Your task to perform on an android device: turn off notifications settings in the gmail app Image 0: 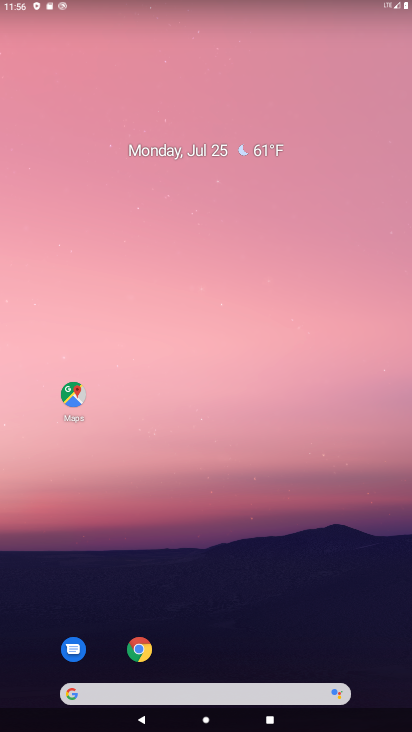
Step 0: drag from (217, 669) to (139, 31)
Your task to perform on an android device: turn off notifications settings in the gmail app Image 1: 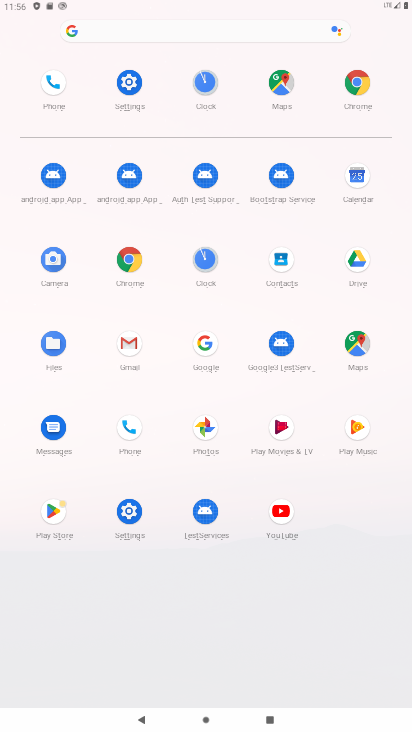
Step 1: click (136, 357)
Your task to perform on an android device: turn off notifications settings in the gmail app Image 2: 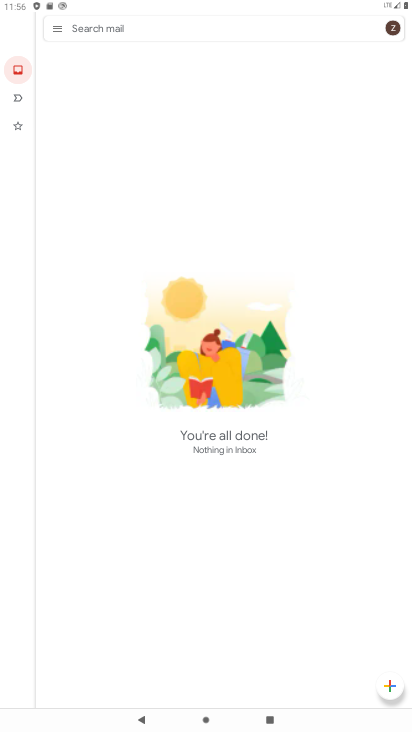
Step 2: click (53, 34)
Your task to perform on an android device: turn off notifications settings in the gmail app Image 3: 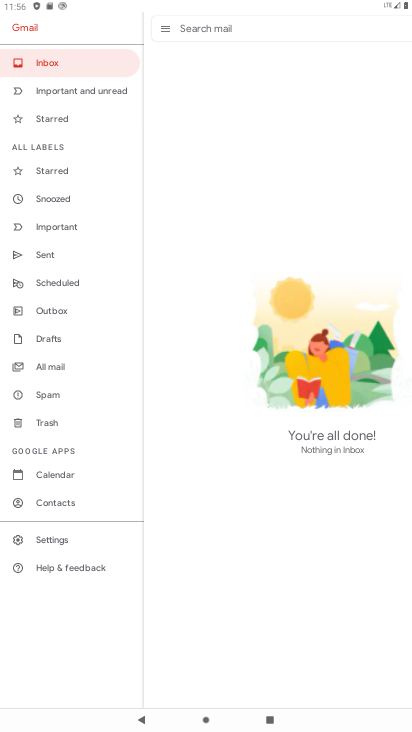
Step 3: click (67, 537)
Your task to perform on an android device: turn off notifications settings in the gmail app Image 4: 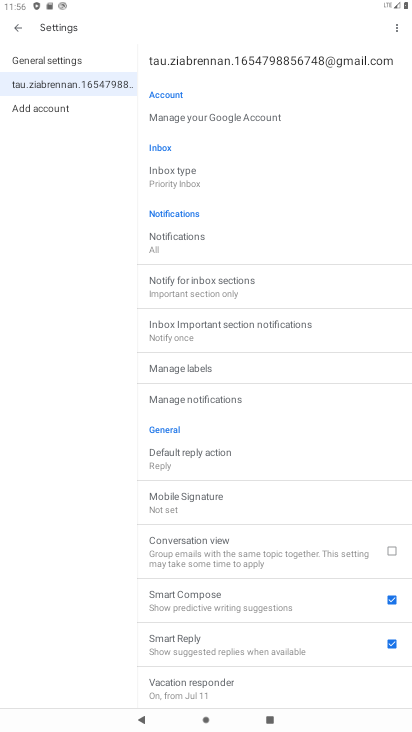
Step 4: click (23, 63)
Your task to perform on an android device: turn off notifications settings in the gmail app Image 5: 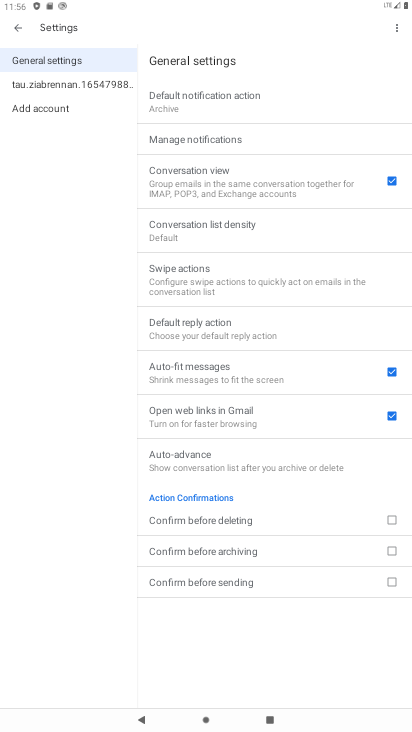
Step 5: click (196, 139)
Your task to perform on an android device: turn off notifications settings in the gmail app Image 6: 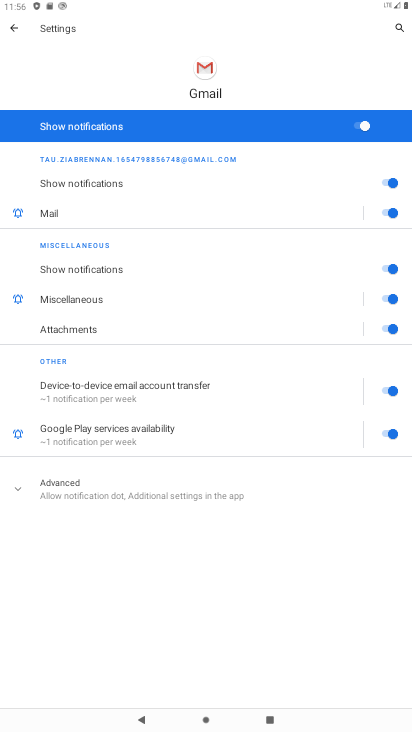
Step 6: click (359, 128)
Your task to perform on an android device: turn off notifications settings in the gmail app Image 7: 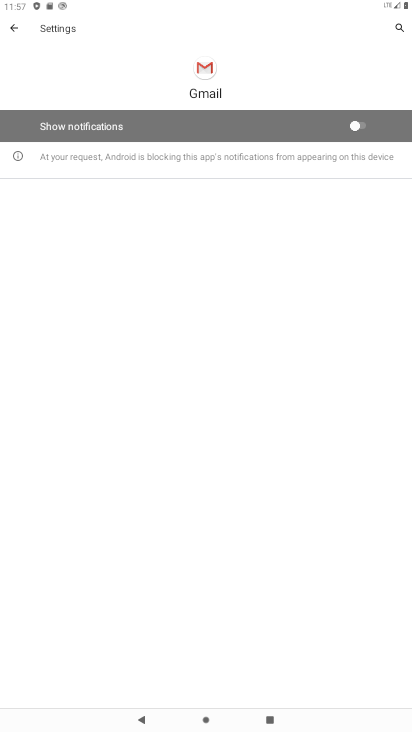
Step 7: task complete